Your task to perform on an android device: Go to Google Image 0: 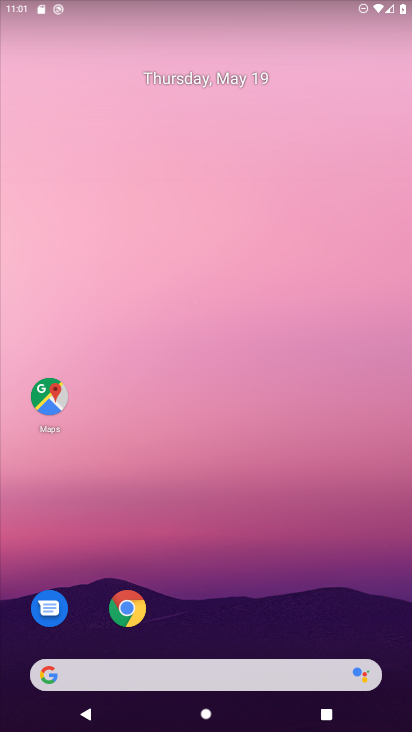
Step 0: drag from (396, 694) to (385, 69)
Your task to perform on an android device: Go to Google Image 1: 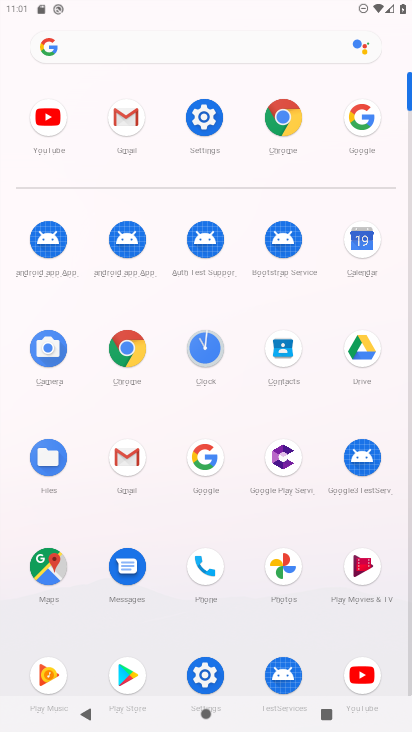
Step 1: click (203, 456)
Your task to perform on an android device: Go to Google Image 2: 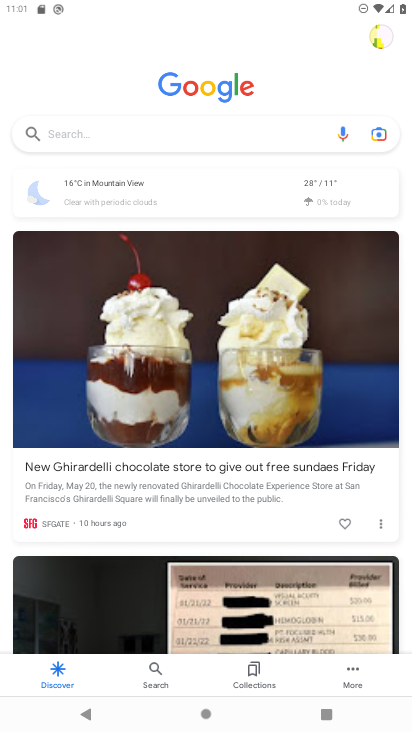
Step 2: task complete